Your task to perform on an android device: Open network settings Image 0: 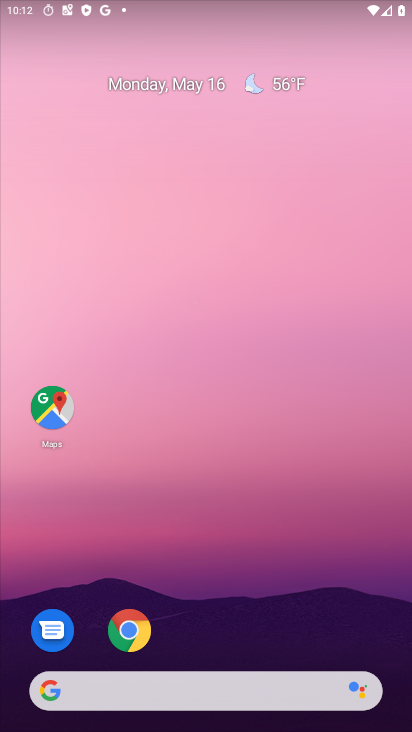
Step 0: drag from (197, 639) to (272, 78)
Your task to perform on an android device: Open network settings Image 1: 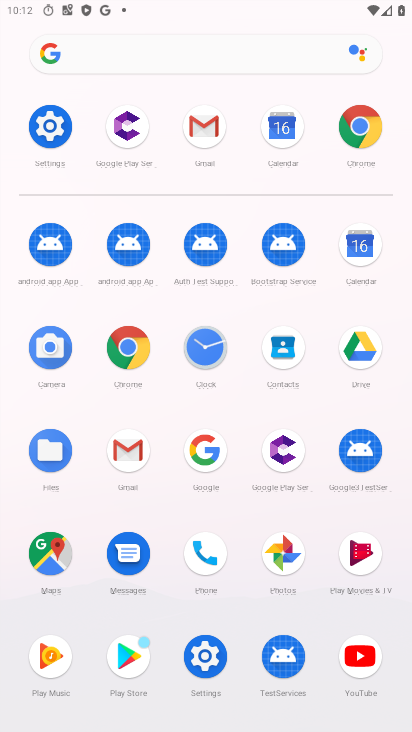
Step 1: click (203, 653)
Your task to perform on an android device: Open network settings Image 2: 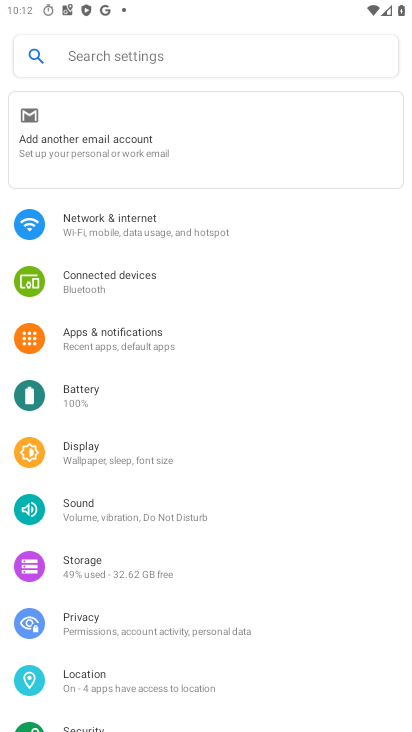
Step 2: click (138, 226)
Your task to perform on an android device: Open network settings Image 3: 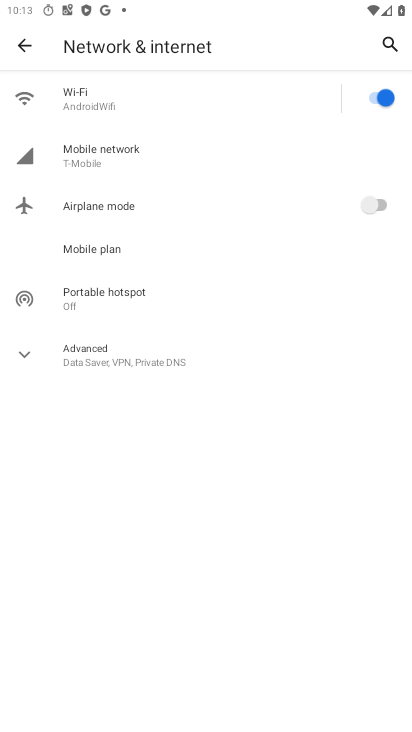
Step 3: task complete